Your task to perform on an android device: change alarm snooze length Image 0: 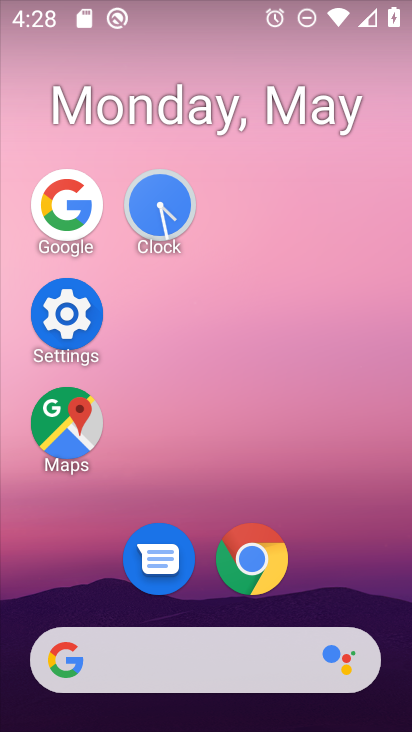
Step 0: click (169, 216)
Your task to perform on an android device: change alarm snooze length Image 1: 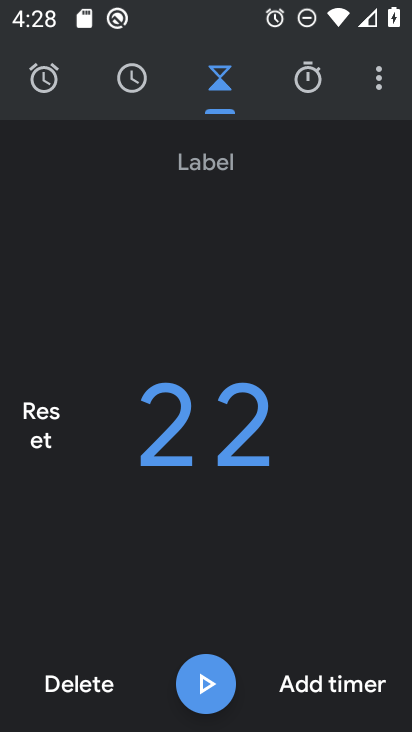
Step 1: click (383, 74)
Your task to perform on an android device: change alarm snooze length Image 2: 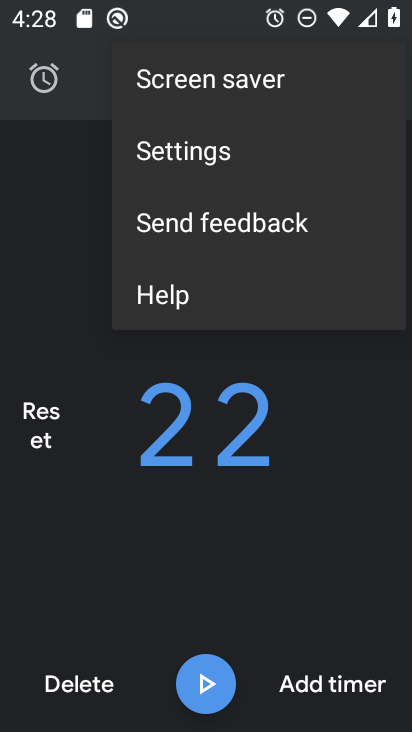
Step 2: click (244, 150)
Your task to perform on an android device: change alarm snooze length Image 3: 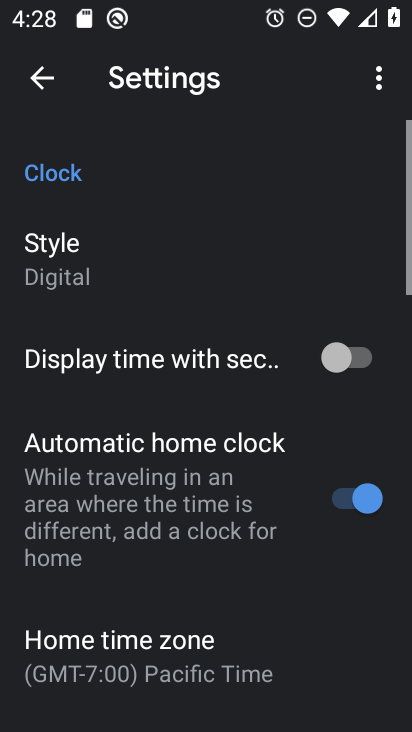
Step 3: drag from (166, 560) to (207, 156)
Your task to perform on an android device: change alarm snooze length Image 4: 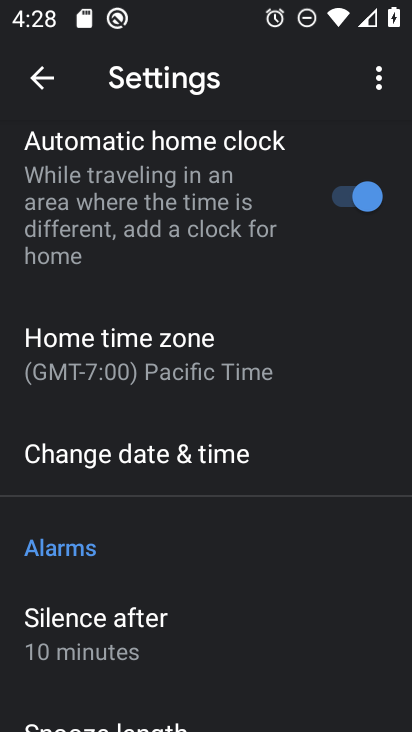
Step 4: drag from (194, 602) to (212, 253)
Your task to perform on an android device: change alarm snooze length Image 5: 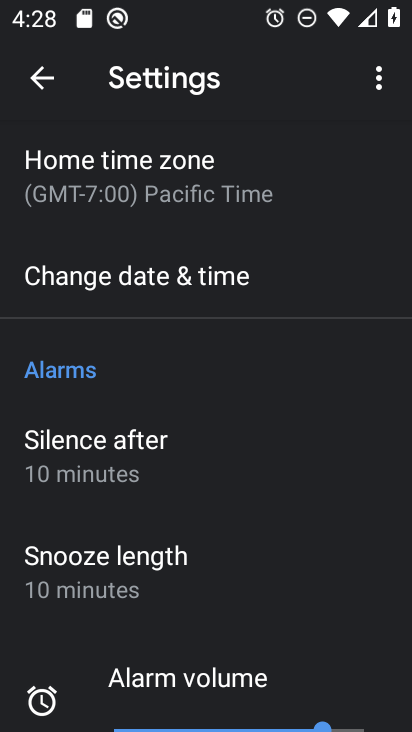
Step 5: drag from (226, 586) to (257, 246)
Your task to perform on an android device: change alarm snooze length Image 6: 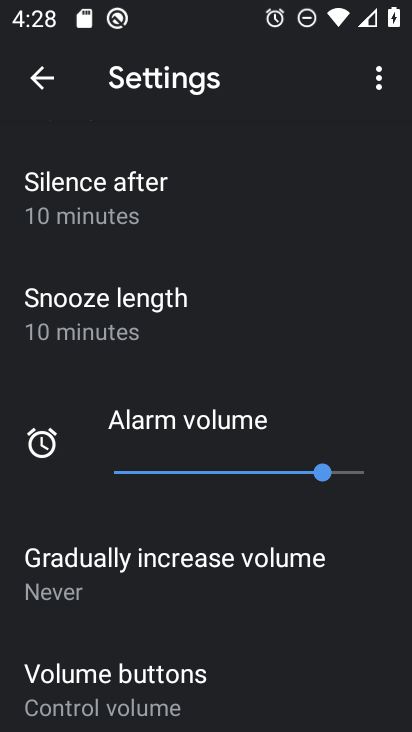
Step 6: click (188, 315)
Your task to perform on an android device: change alarm snooze length Image 7: 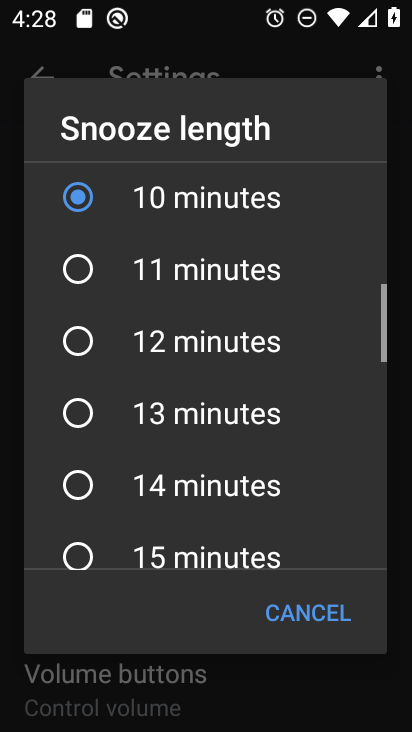
Step 7: click (183, 295)
Your task to perform on an android device: change alarm snooze length Image 8: 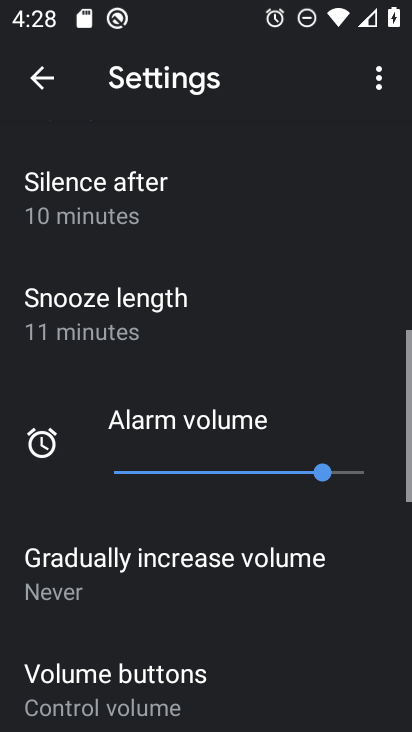
Step 8: task complete